Your task to perform on an android device: open app "Booking.com: Hotels and more" Image 0: 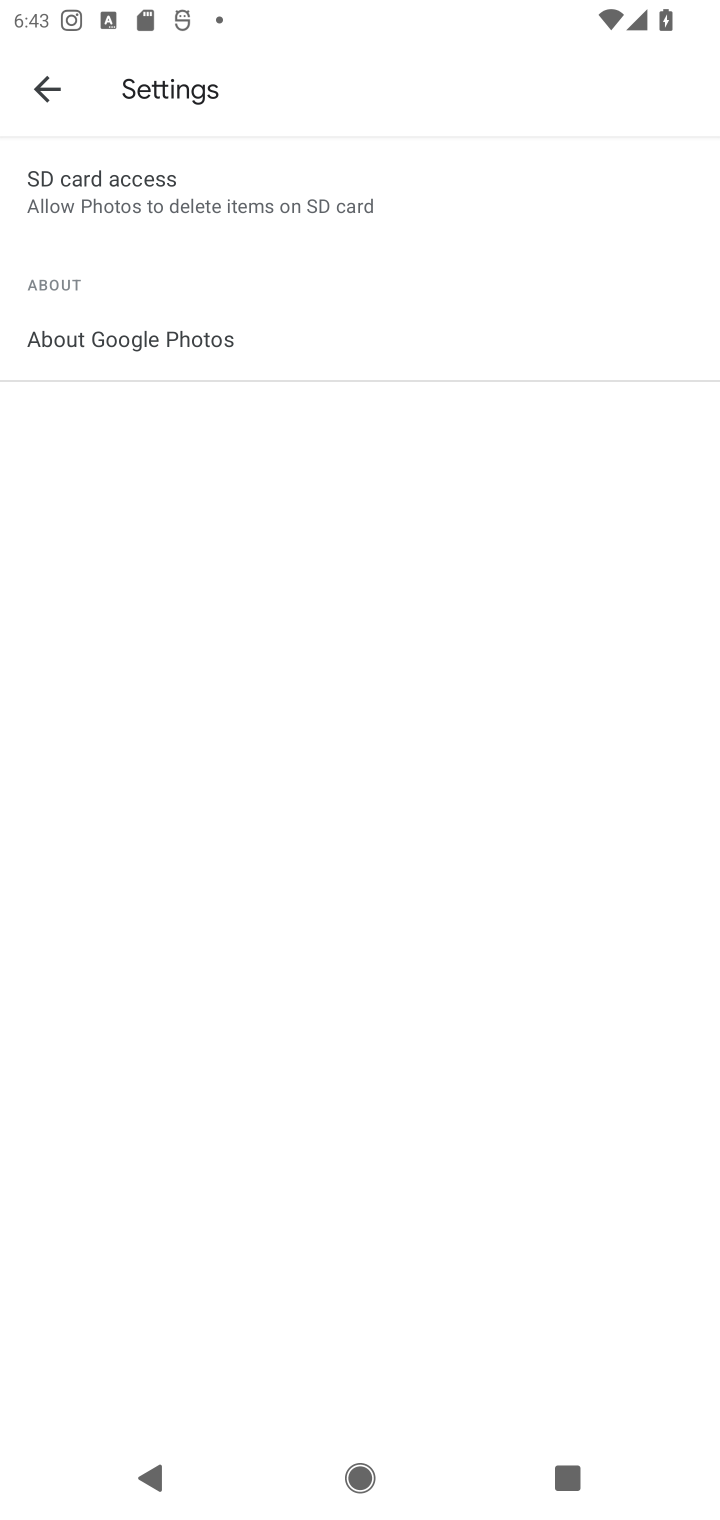
Step 0: click (34, 108)
Your task to perform on an android device: open app "Booking.com: Hotels and more" Image 1: 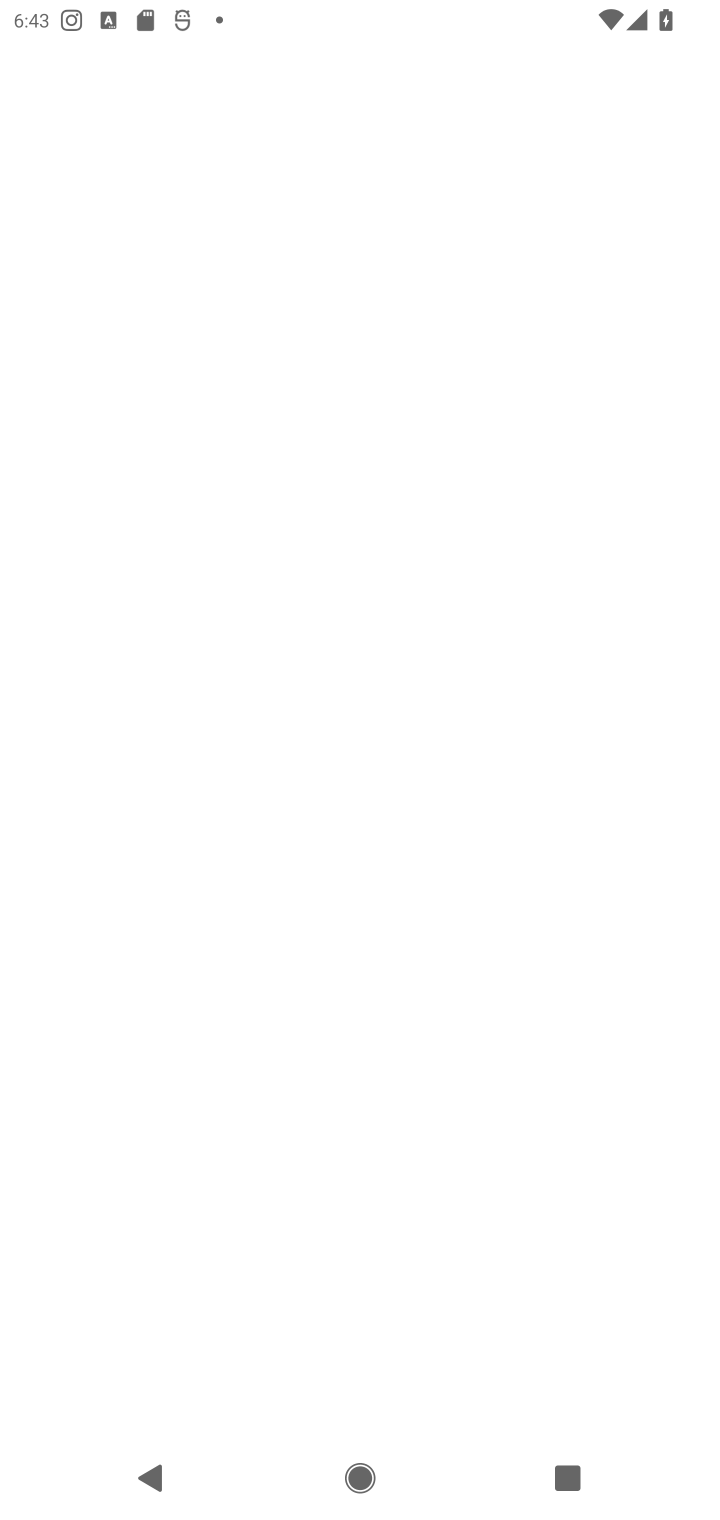
Step 1: press home button
Your task to perform on an android device: open app "Booking.com: Hotels and more" Image 2: 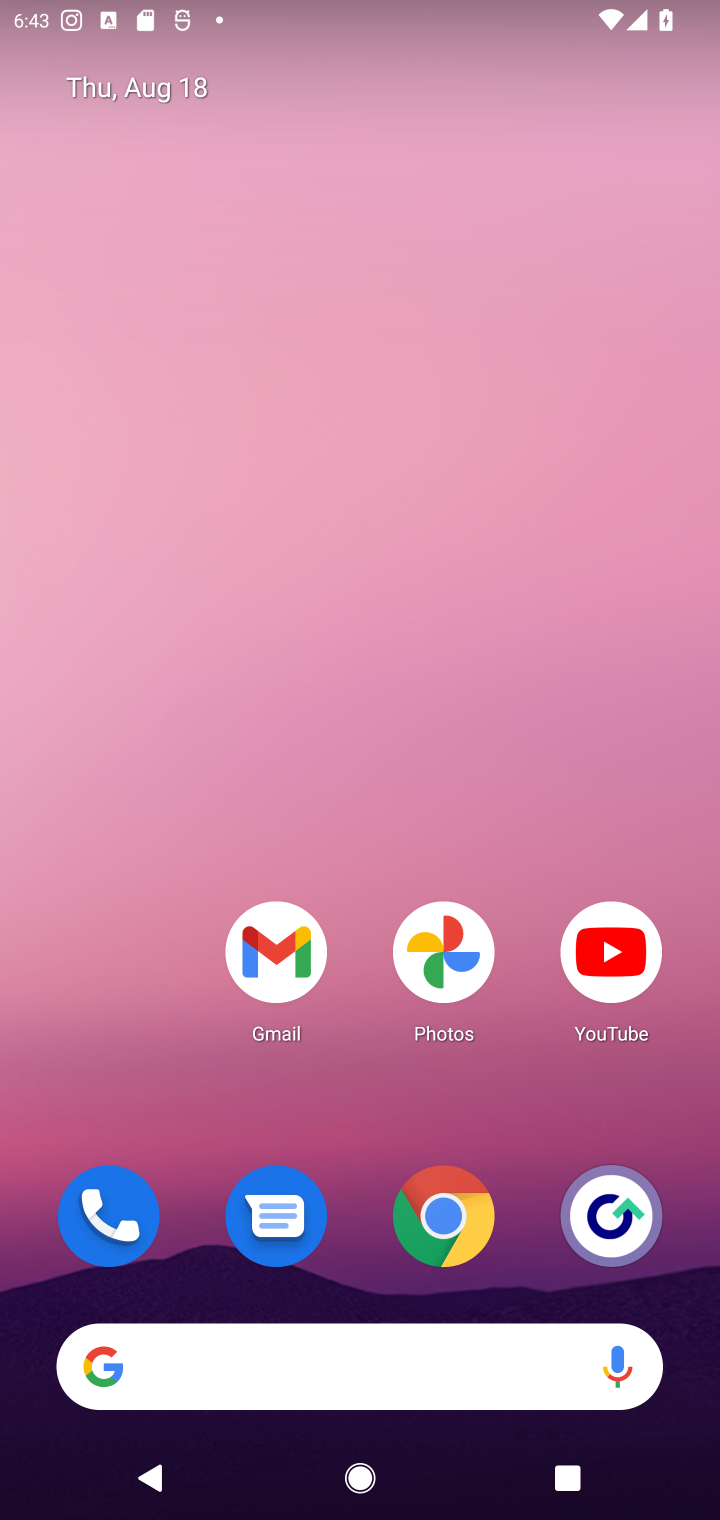
Step 2: drag from (440, 844) to (440, 339)
Your task to perform on an android device: open app "Booking.com: Hotels and more" Image 3: 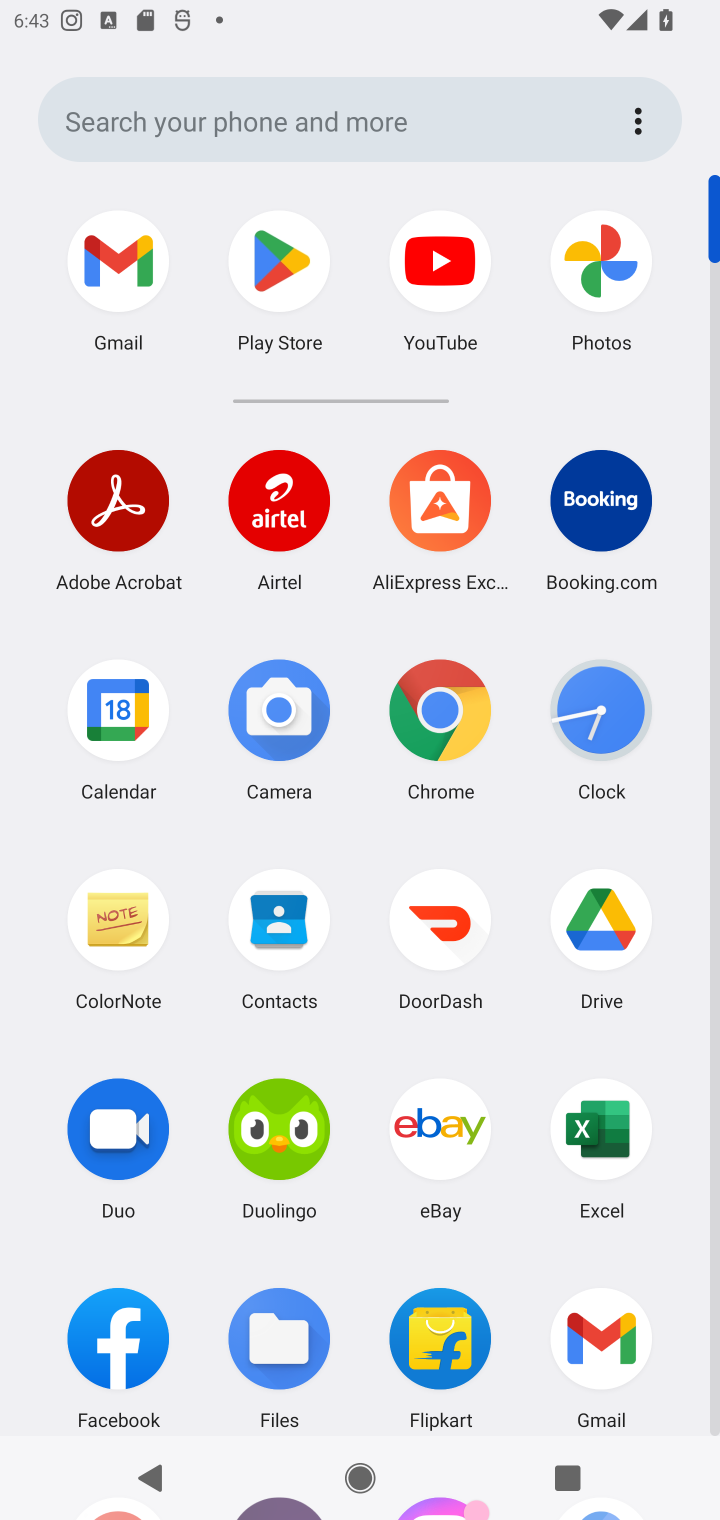
Step 3: click (280, 245)
Your task to perform on an android device: open app "Booking.com: Hotels and more" Image 4: 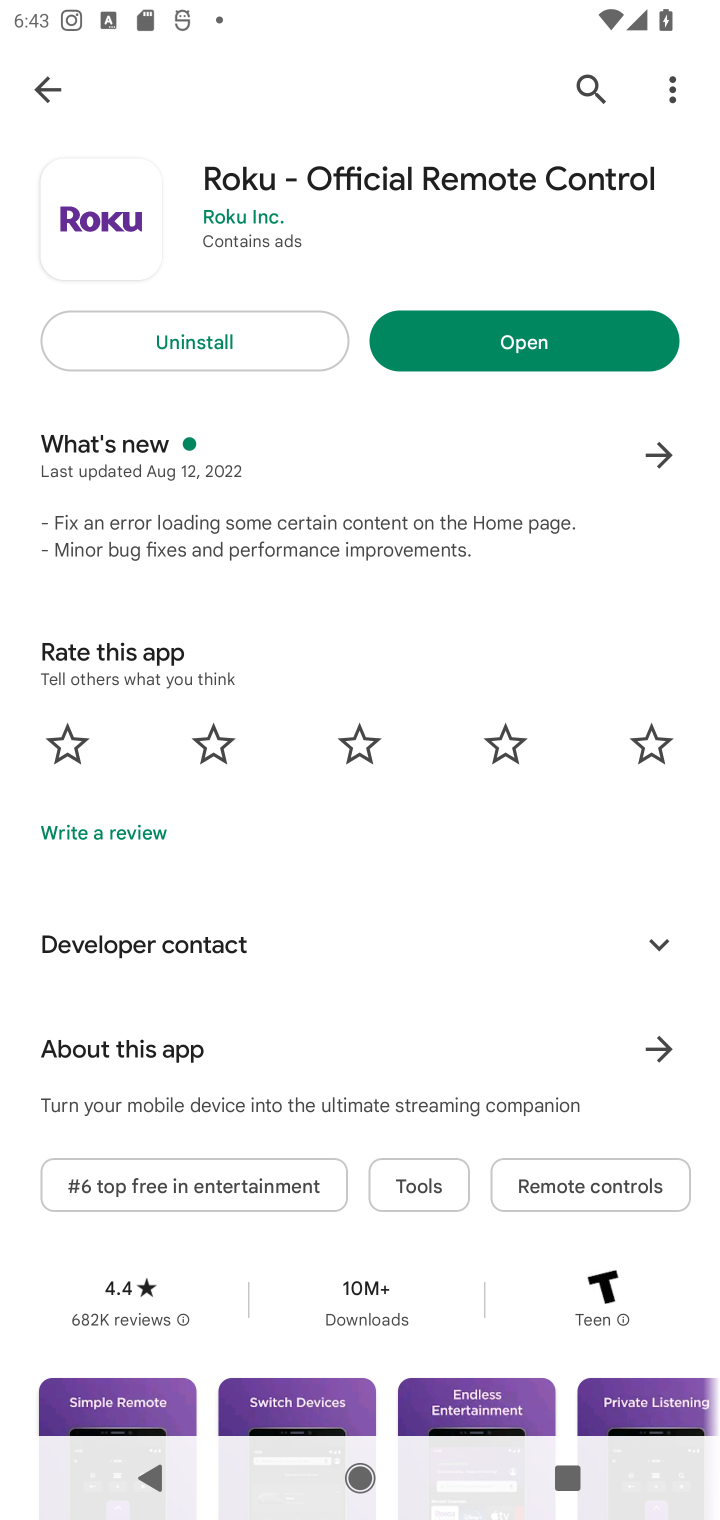
Step 4: click (583, 92)
Your task to perform on an android device: open app "Booking.com: Hotels and more" Image 5: 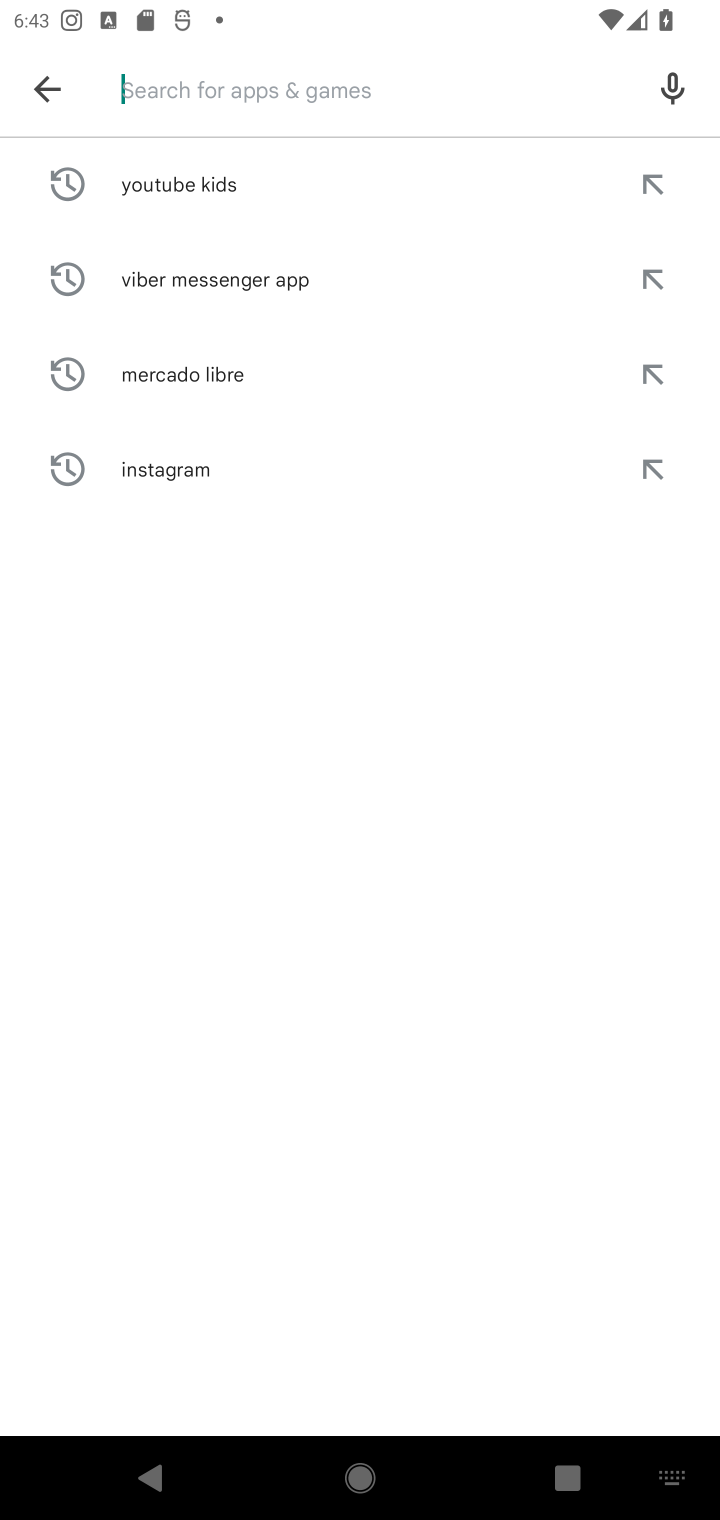
Step 5: type "Booking.com: Hotels and more"
Your task to perform on an android device: open app "Booking.com: Hotels and more" Image 6: 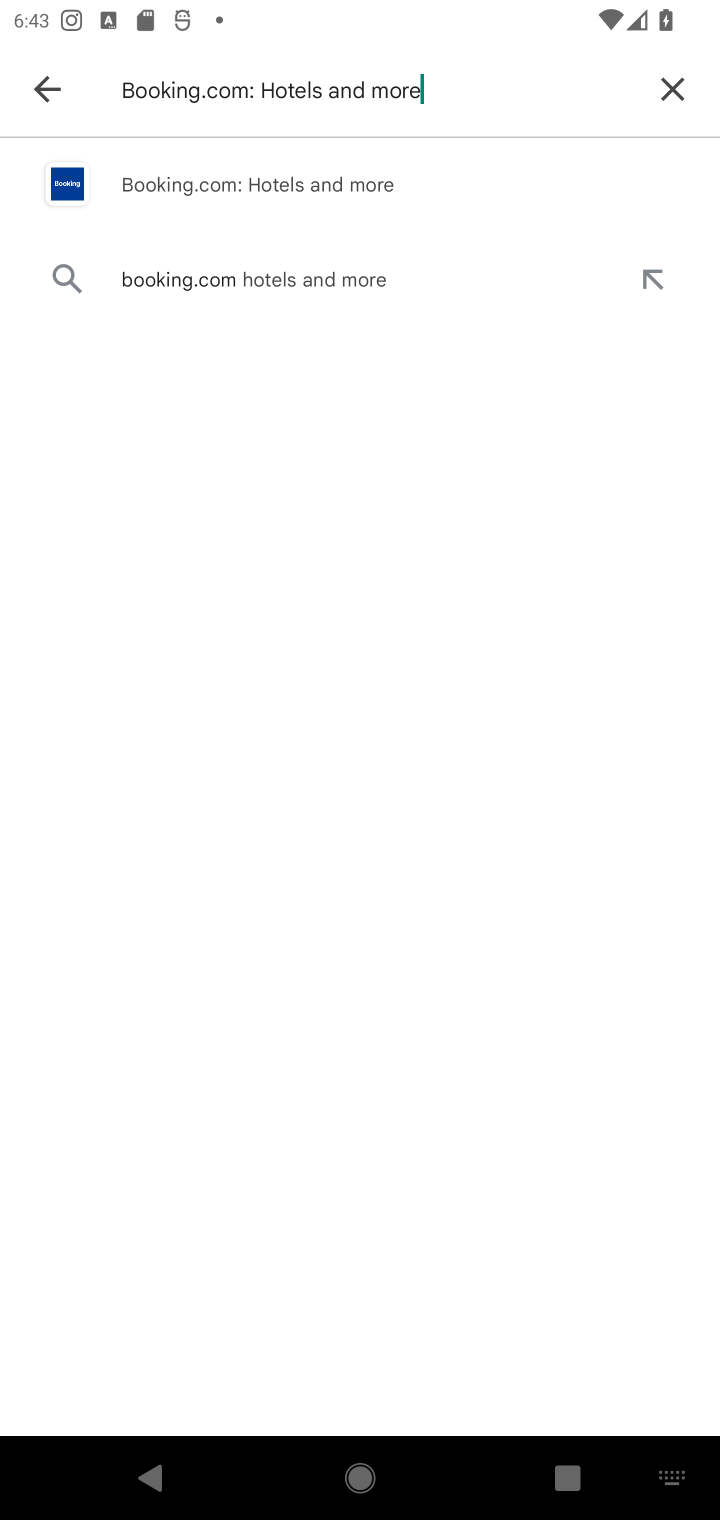
Step 6: click (294, 197)
Your task to perform on an android device: open app "Booking.com: Hotels and more" Image 7: 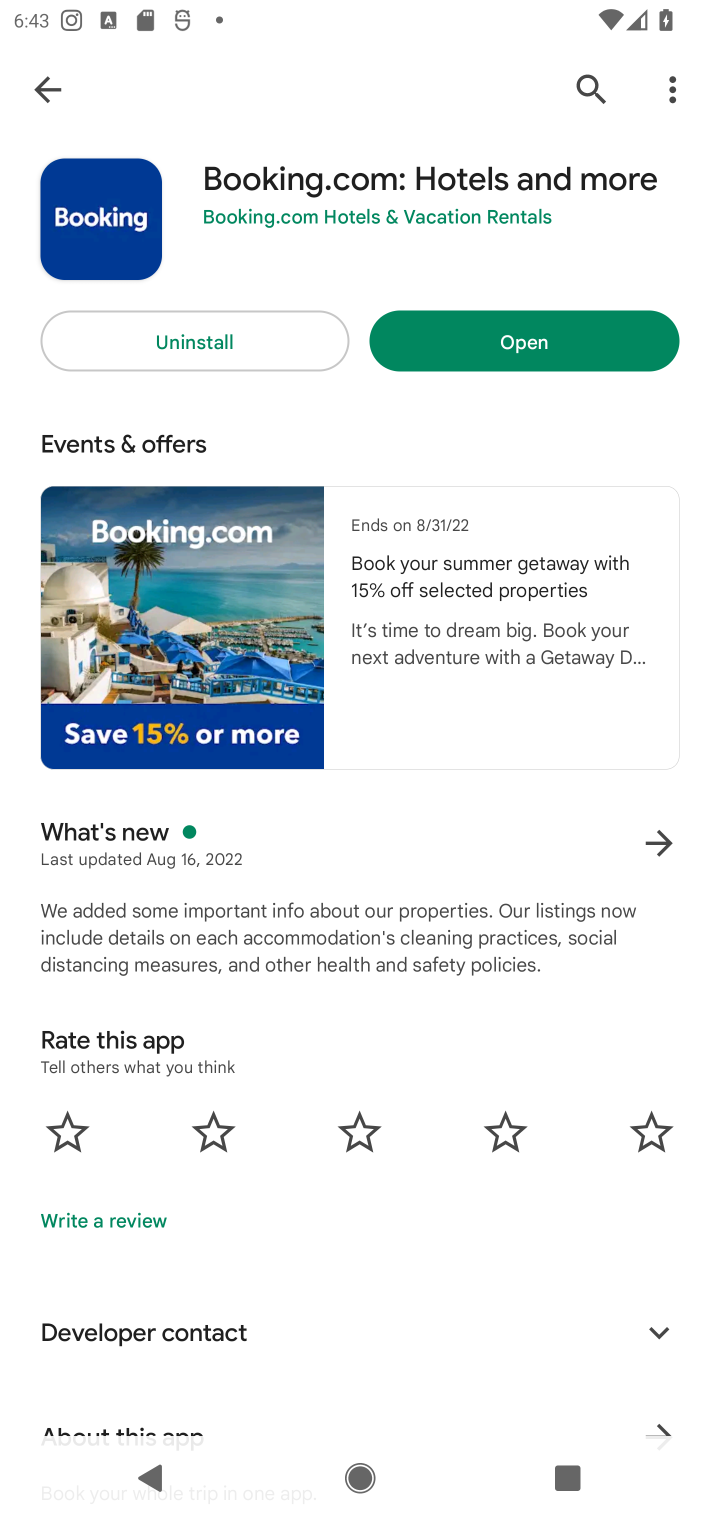
Step 7: click (475, 358)
Your task to perform on an android device: open app "Booking.com: Hotels and more" Image 8: 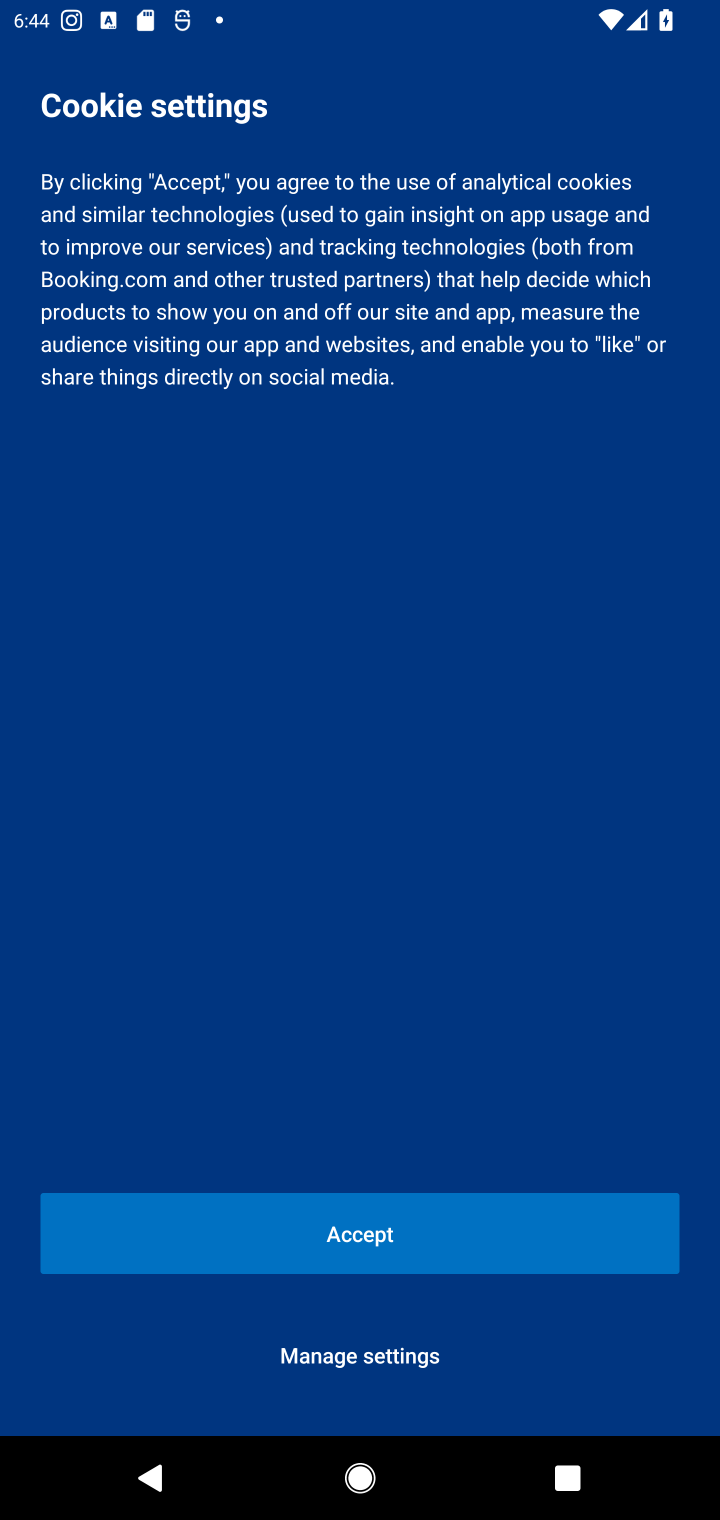
Step 8: task complete